Your task to perform on an android device: manage bookmarks in the chrome app Image 0: 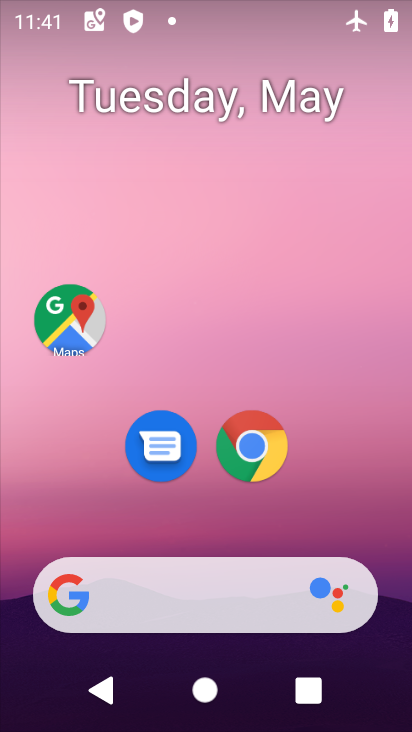
Step 0: click (256, 450)
Your task to perform on an android device: manage bookmarks in the chrome app Image 1: 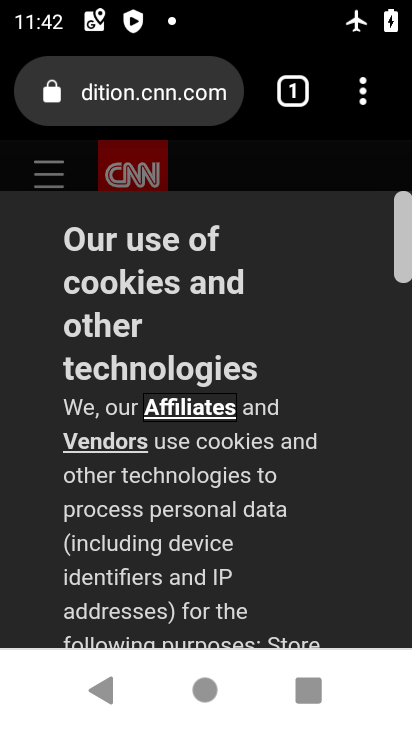
Step 1: click (366, 104)
Your task to perform on an android device: manage bookmarks in the chrome app Image 2: 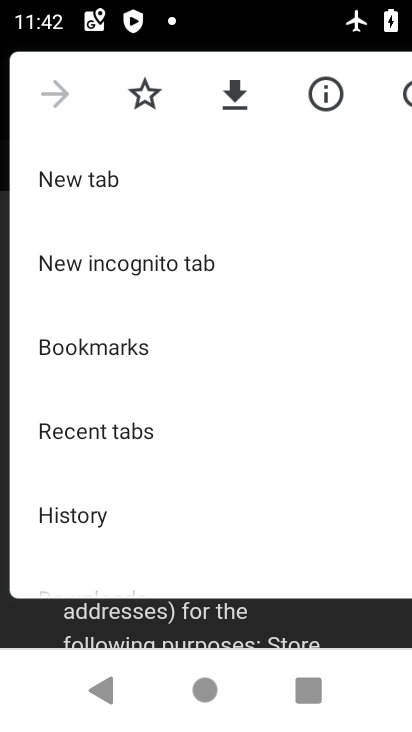
Step 2: click (91, 341)
Your task to perform on an android device: manage bookmarks in the chrome app Image 3: 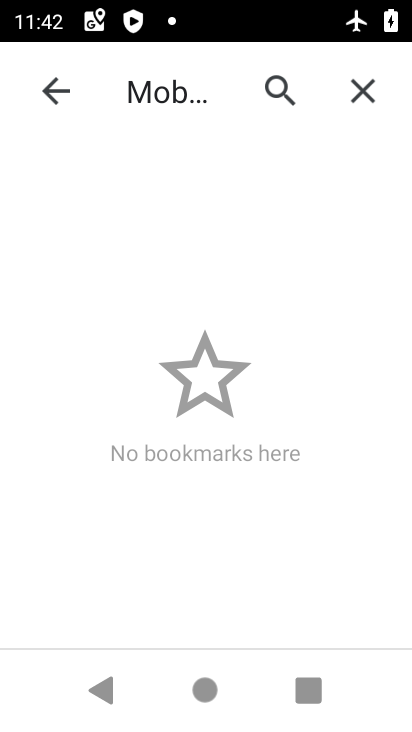
Step 3: task complete